Your task to perform on an android device: add a label to a message in the gmail app Image 0: 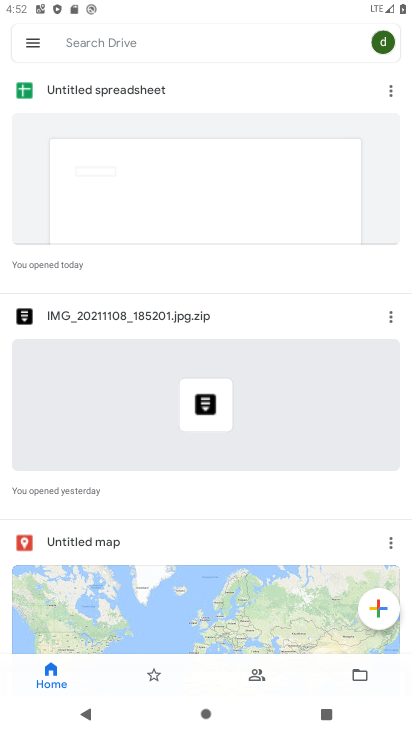
Step 0: press back button
Your task to perform on an android device: add a label to a message in the gmail app Image 1: 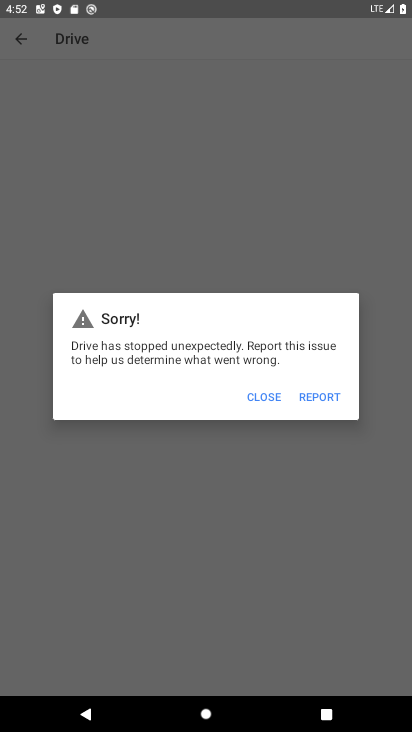
Step 1: press home button
Your task to perform on an android device: add a label to a message in the gmail app Image 2: 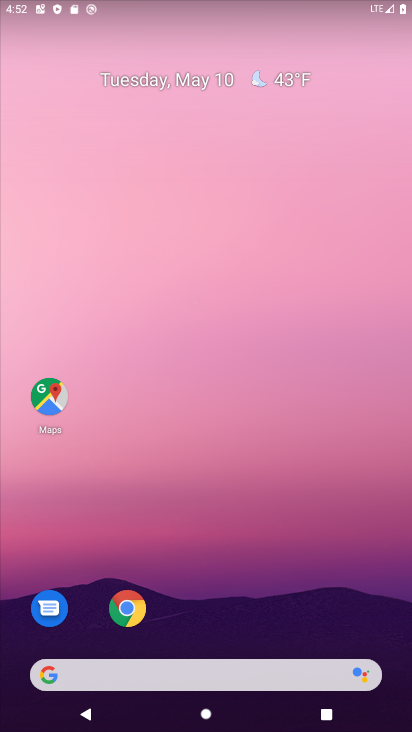
Step 2: drag from (226, 571) to (347, 102)
Your task to perform on an android device: add a label to a message in the gmail app Image 3: 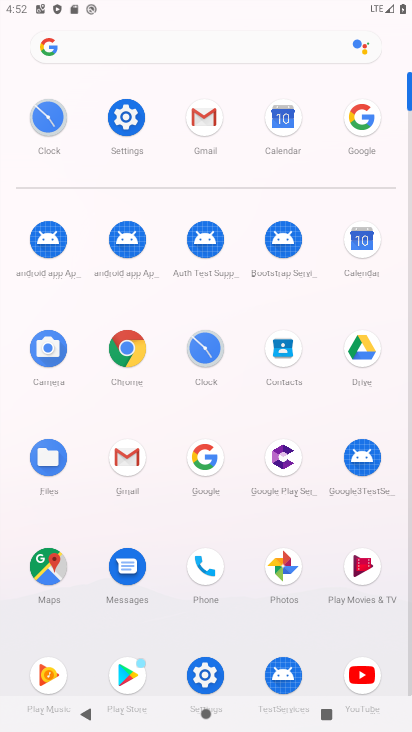
Step 3: click (192, 108)
Your task to perform on an android device: add a label to a message in the gmail app Image 4: 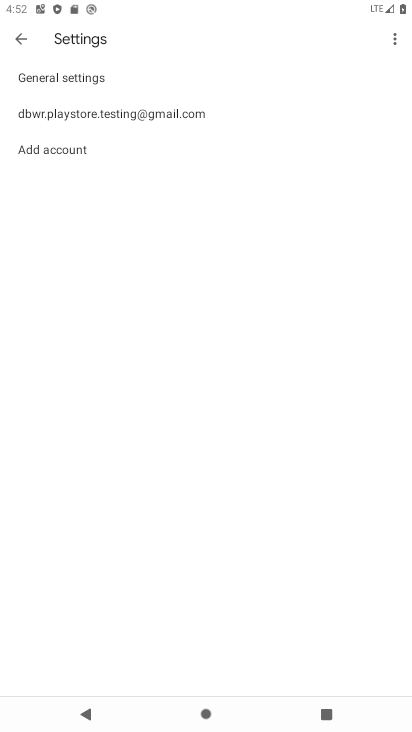
Step 4: click (26, 37)
Your task to perform on an android device: add a label to a message in the gmail app Image 5: 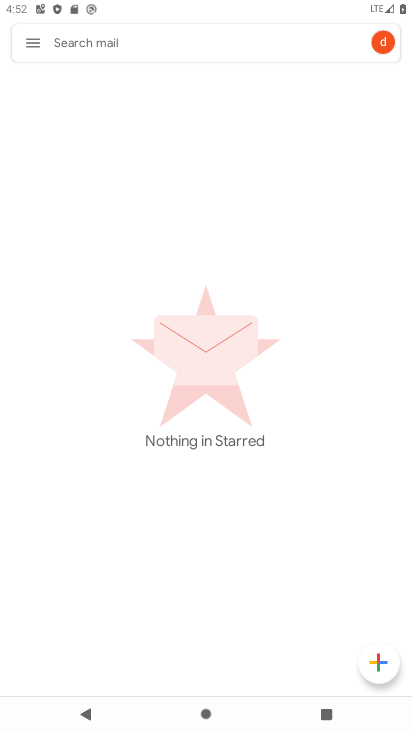
Step 5: click (35, 42)
Your task to perform on an android device: add a label to a message in the gmail app Image 6: 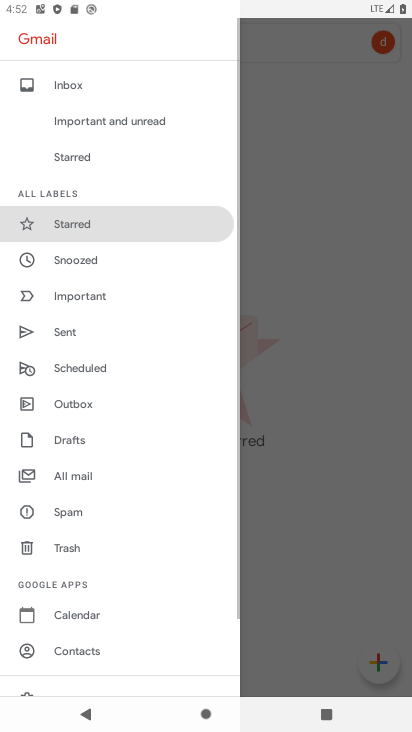
Step 6: click (82, 478)
Your task to perform on an android device: add a label to a message in the gmail app Image 7: 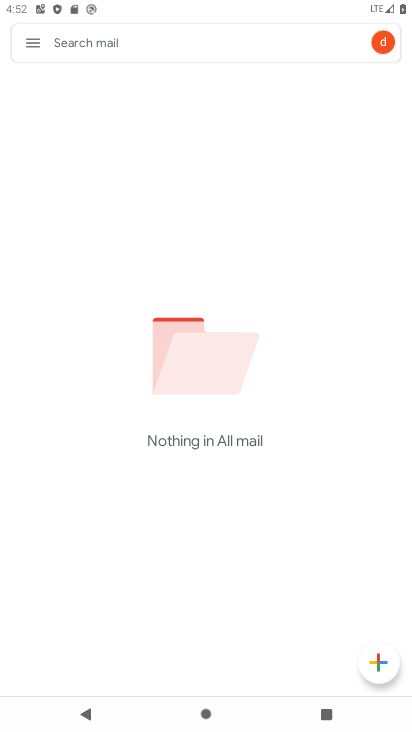
Step 7: task complete